Your task to perform on an android device: Open the Play Movies app and select the watchlist tab. Image 0: 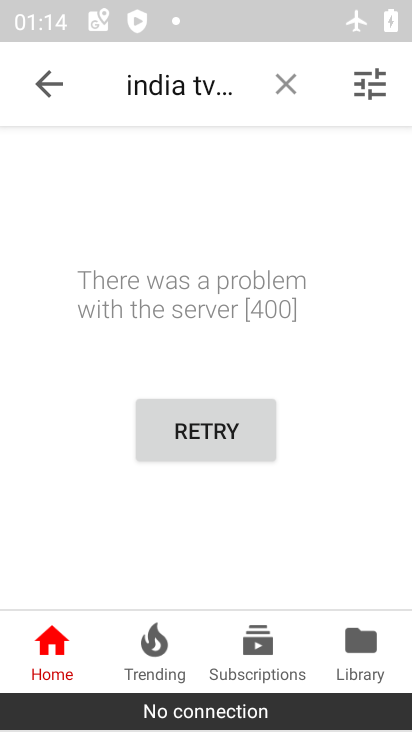
Step 0: press home button
Your task to perform on an android device: Open the Play Movies app and select the watchlist tab. Image 1: 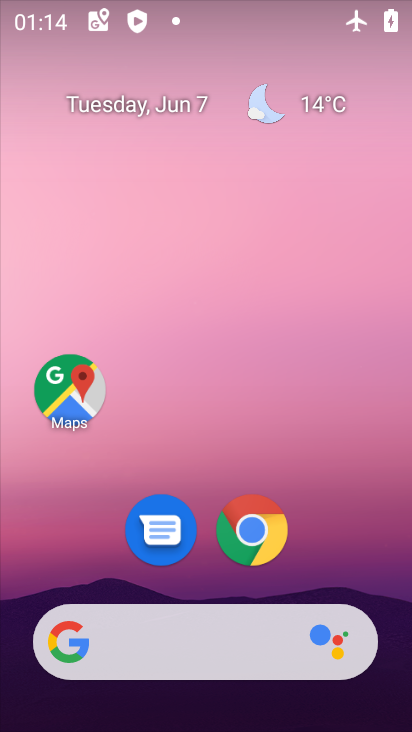
Step 1: drag from (348, 576) to (312, 270)
Your task to perform on an android device: Open the Play Movies app and select the watchlist tab. Image 2: 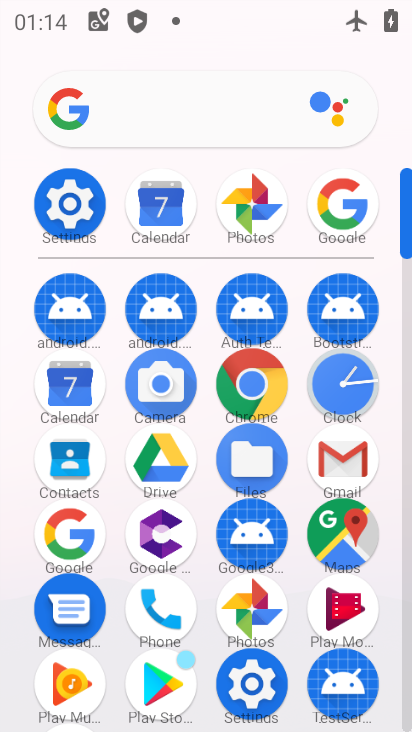
Step 2: click (339, 604)
Your task to perform on an android device: Open the Play Movies app and select the watchlist tab. Image 3: 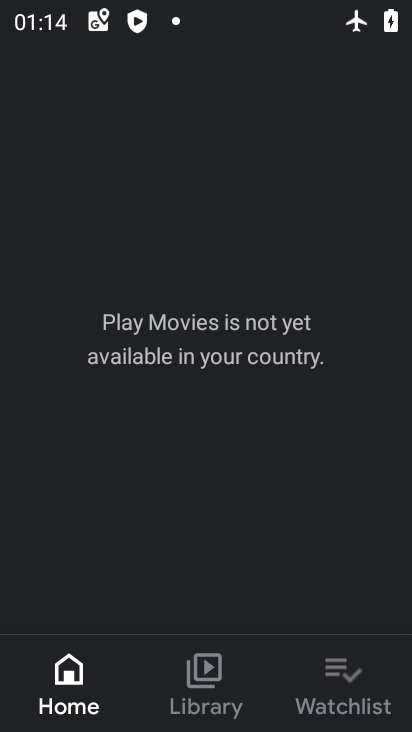
Step 3: click (355, 671)
Your task to perform on an android device: Open the Play Movies app and select the watchlist tab. Image 4: 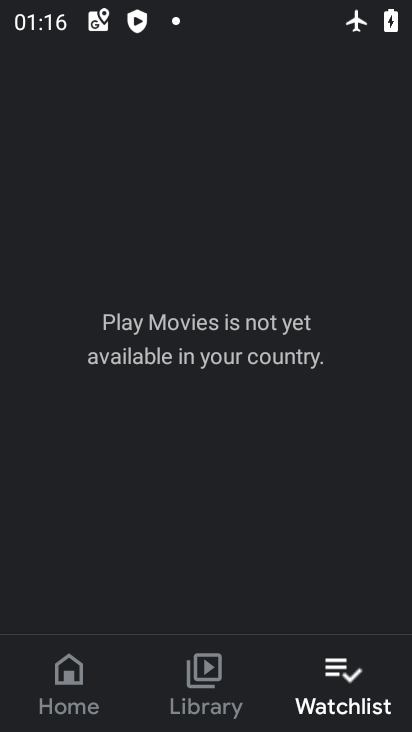
Step 4: task complete